Your task to perform on an android device: Show me the best 1080p monitor on Target.com Image 0: 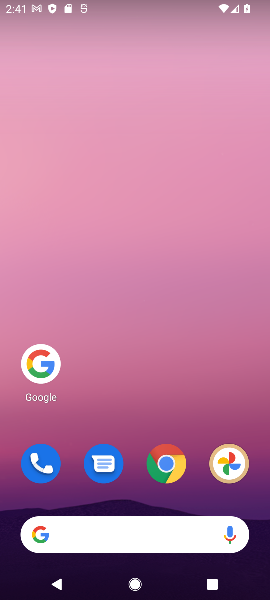
Step 0: click (33, 369)
Your task to perform on an android device: Show me the best 1080p monitor on Target.com Image 1: 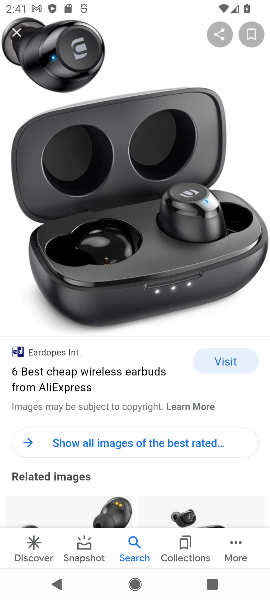
Step 1: click (20, 35)
Your task to perform on an android device: Show me the best 1080p monitor on Target.com Image 2: 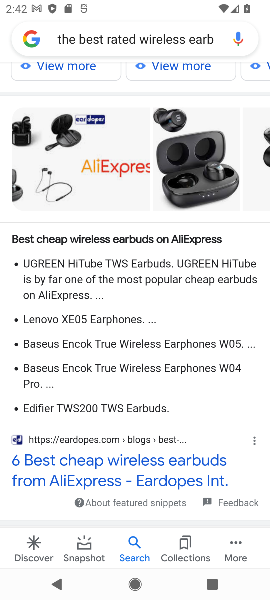
Step 2: click (122, 31)
Your task to perform on an android device: Show me the best 1080p monitor on Target.com Image 3: 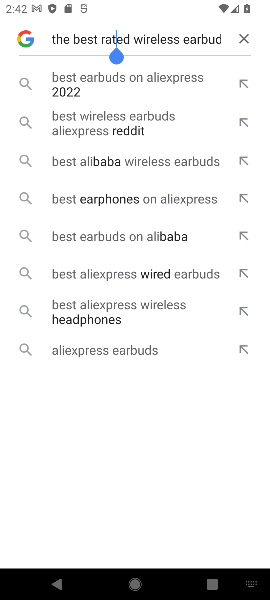
Step 3: click (248, 36)
Your task to perform on an android device: Show me the best 1080p monitor on Target.com Image 4: 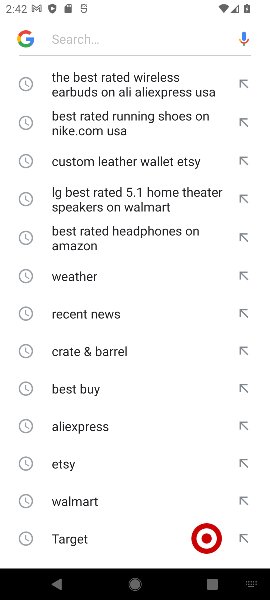
Step 4: click (122, 34)
Your task to perform on an android device: Show me the best 1080p monitor on Target.com Image 5: 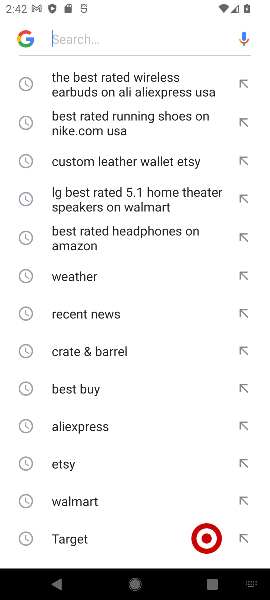
Step 5: type " the best 1080p monitor on Target.com "
Your task to perform on an android device: Show me the best 1080p monitor on Target.com Image 6: 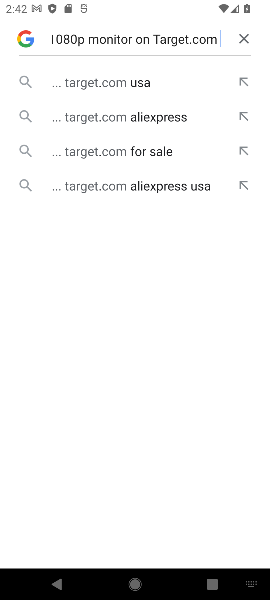
Step 6: click (147, 91)
Your task to perform on an android device: Show me the best 1080p monitor on Target.com Image 7: 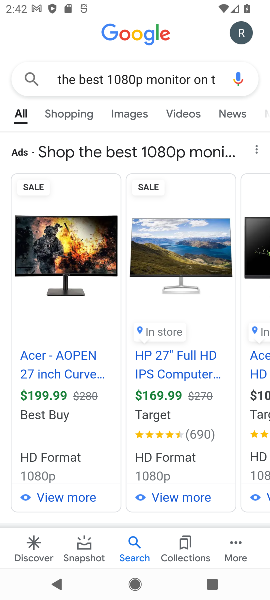
Step 7: task complete